Your task to perform on an android device: turn on sleep mode Image 0: 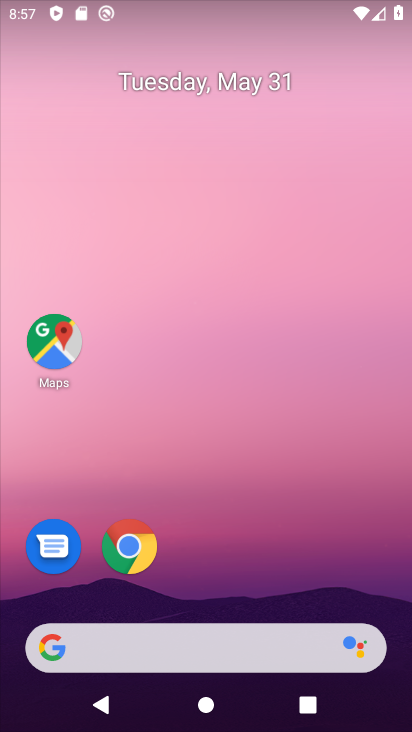
Step 0: drag from (236, 602) to (300, 6)
Your task to perform on an android device: turn on sleep mode Image 1: 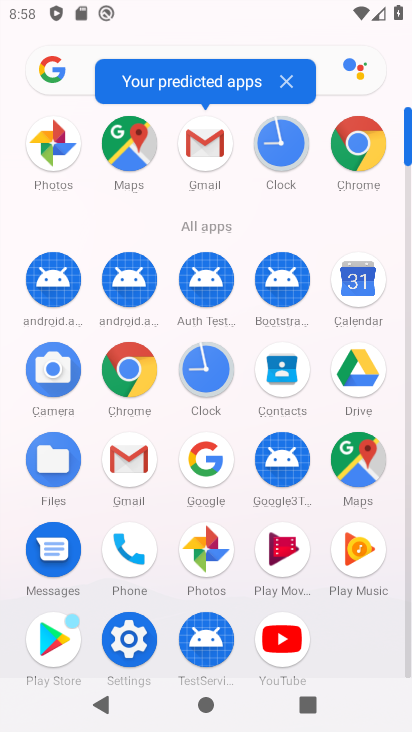
Step 1: click (127, 636)
Your task to perform on an android device: turn on sleep mode Image 2: 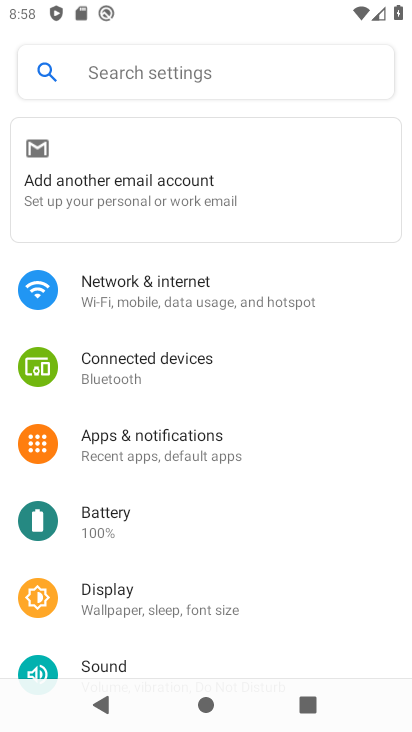
Step 2: click (209, 57)
Your task to perform on an android device: turn on sleep mode Image 3: 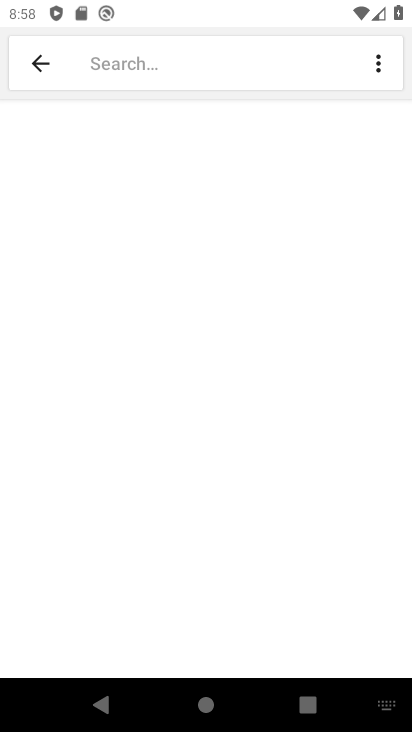
Step 3: type "sleep mode"
Your task to perform on an android device: turn on sleep mode Image 4: 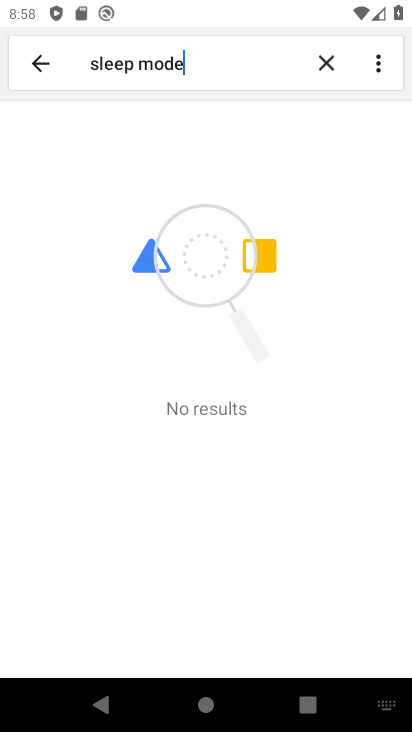
Step 4: task complete